Your task to perform on an android device: Open Google Maps Image 0: 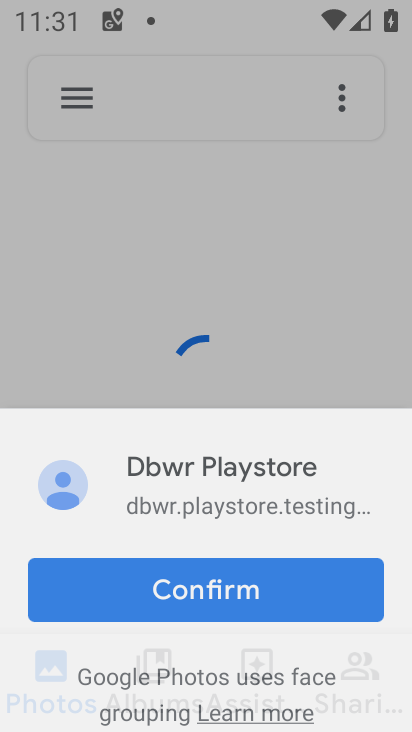
Step 0: press home button
Your task to perform on an android device: Open Google Maps Image 1: 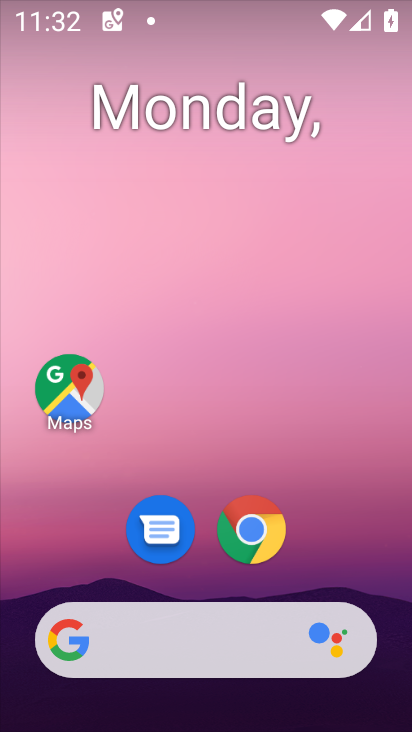
Step 1: drag from (271, 684) to (306, 127)
Your task to perform on an android device: Open Google Maps Image 2: 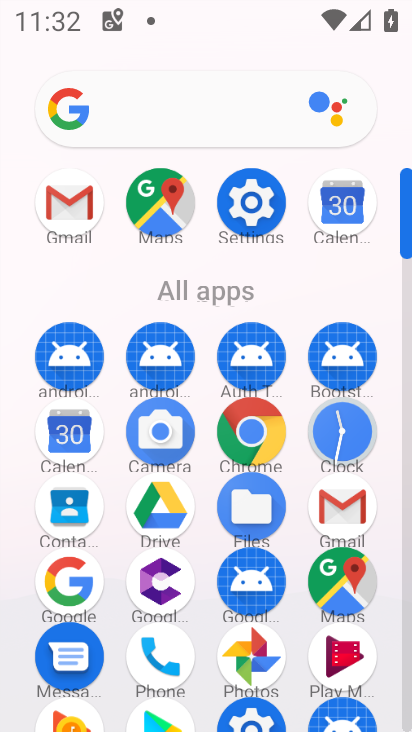
Step 2: click (146, 191)
Your task to perform on an android device: Open Google Maps Image 3: 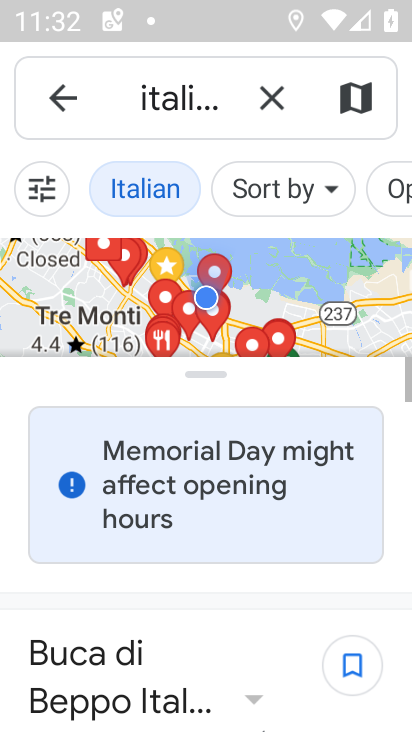
Step 3: click (43, 111)
Your task to perform on an android device: Open Google Maps Image 4: 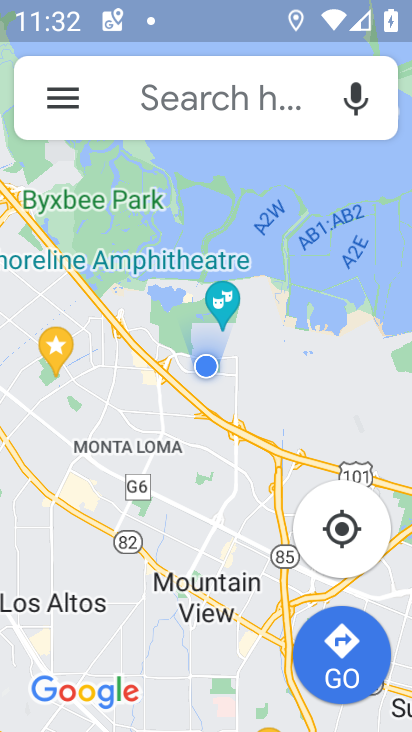
Step 4: task complete